Your task to perform on an android device: change alarm snooze length Image 0: 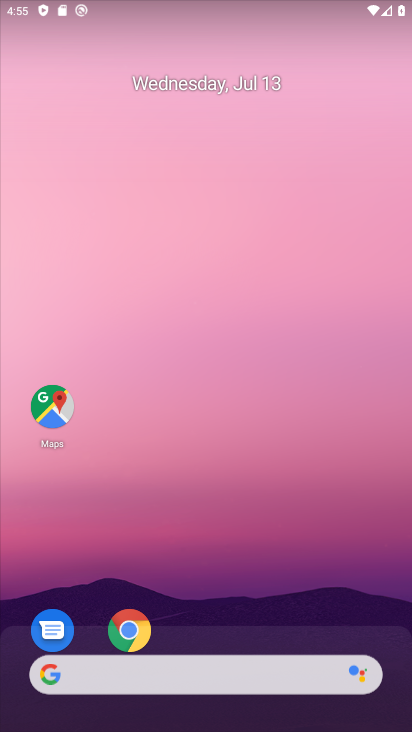
Step 0: drag from (209, 90) to (207, 45)
Your task to perform on an android device: change alarm snooze length Image 1: 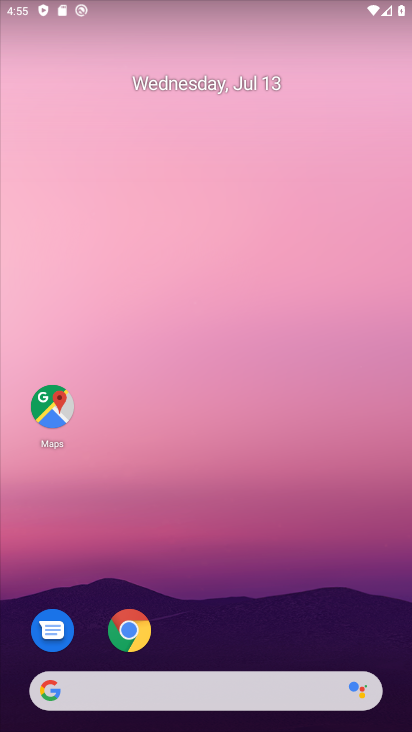
Step 1: drag from (204, 550) to (267, 34)
Your task to perform on an android device: change alarm snooze length Image 2: 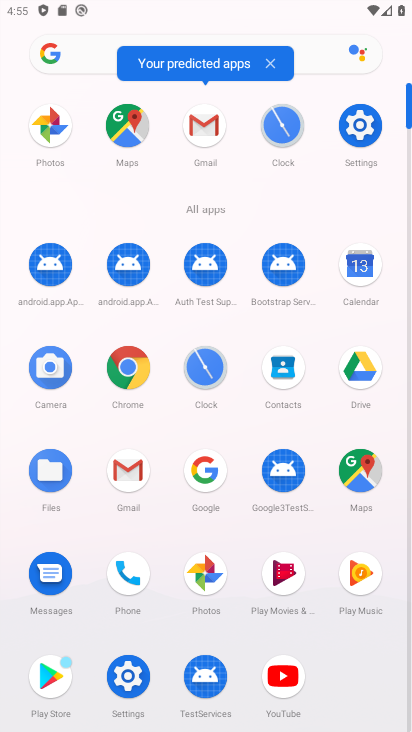
Step 2: click (192, 373)
Your task to perform on an android device: change alarm snooze length Image 3: 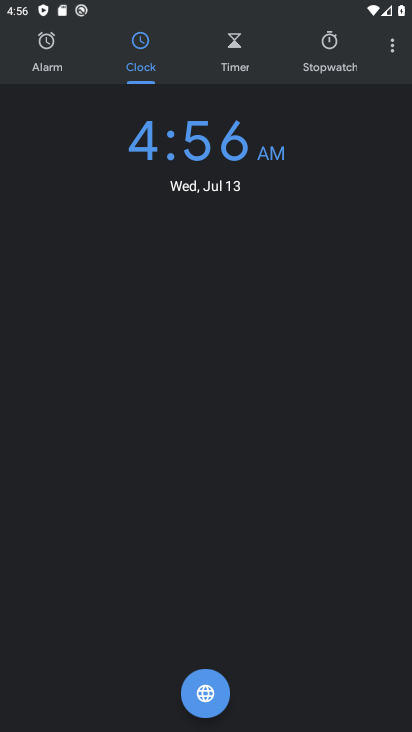
Step 3: click (389, 45)
Your task to perform on an android device: change alarm snooze length Image 4: 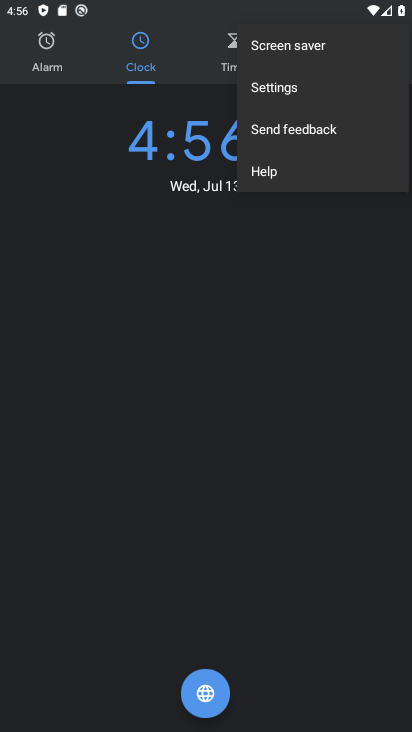
Step 4: click (273, 87)
Your task to perform on an android device: change alarm snooze length Image 5: 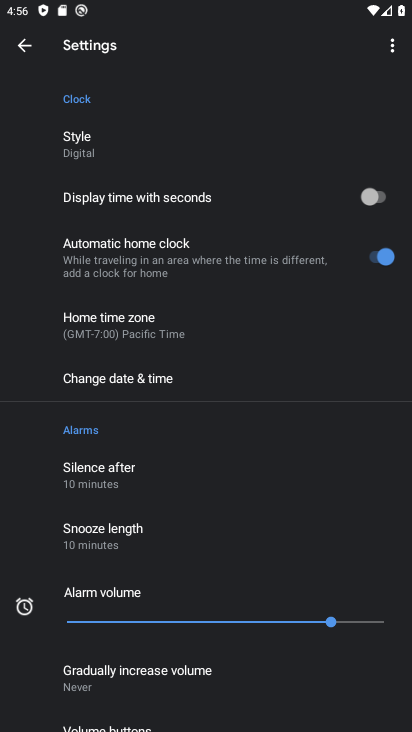
Step 5: drag from (181, 505) to (233, 162)
Your task to perform on an android device: change alarm snooze length Image 6: 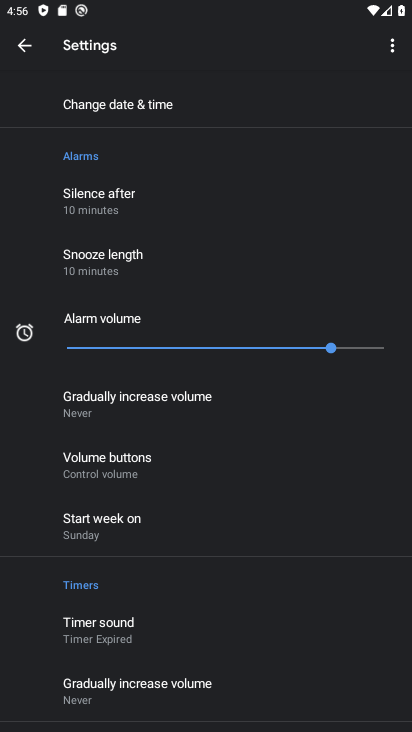
Step 6: click (118, 266)
Your task to perform on an android device: change alarm snooze length Image 7: 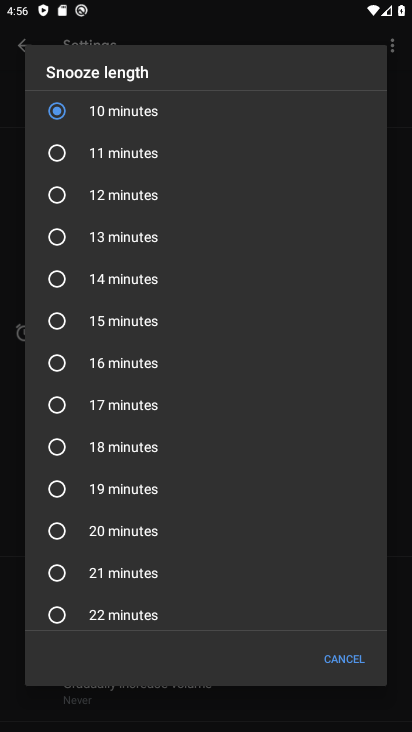
Step 7: click (61, 163)
Your task to perform on an android device: change alarm snooze length Image 8: 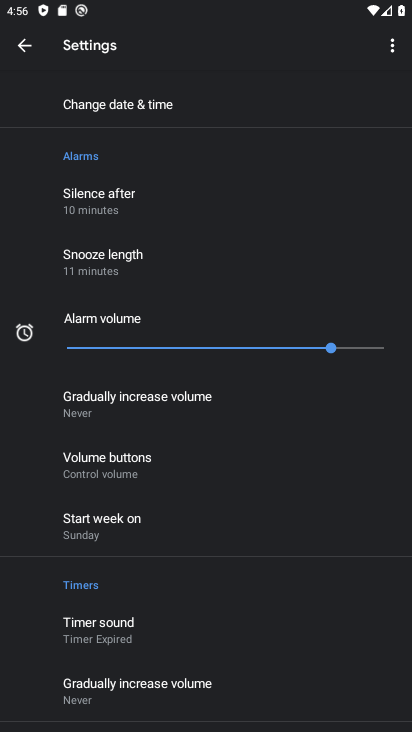
Step 8: task complete